Your task to perform on an android device: What's the weather going to be this weekend? Image 0: 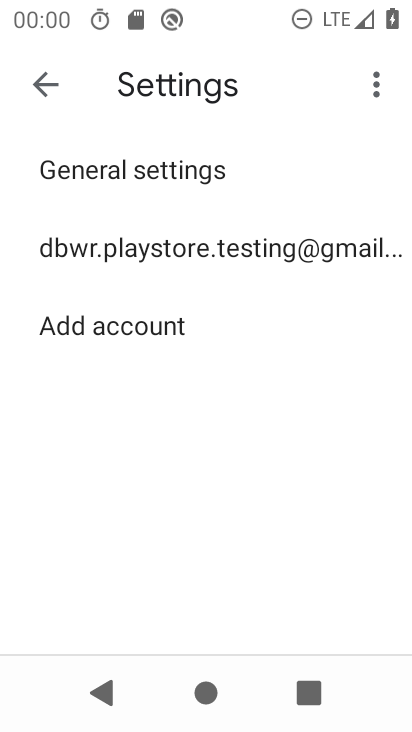
Step 0: press home button
Your task to perform on an android device: What's the weather going to be this weekend? Image 1: 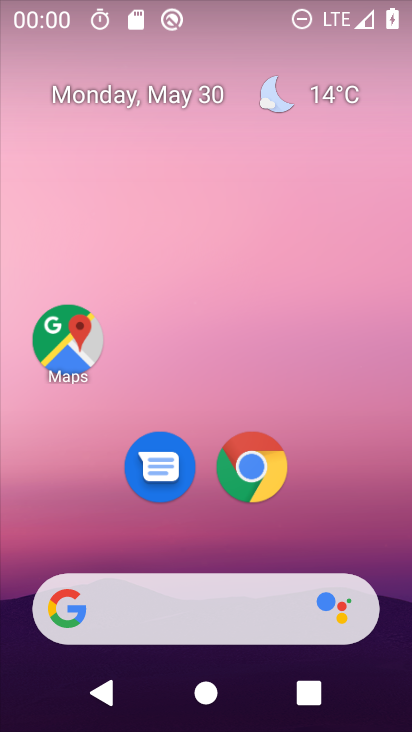
Step 1: drag from (207, 545) to (214, 222)
Your task to perform on an android device: What's the weather going to be this weekend? Image 2: 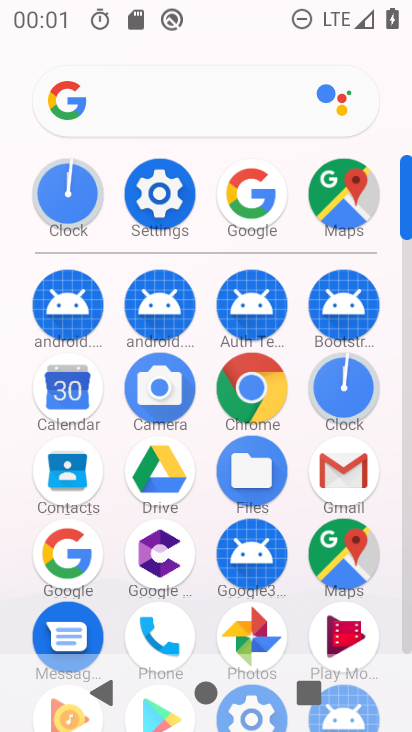
Step 2: click (252, 186)
Your task to perform on an android device: What's the weather going to be this weekend? Image 3: 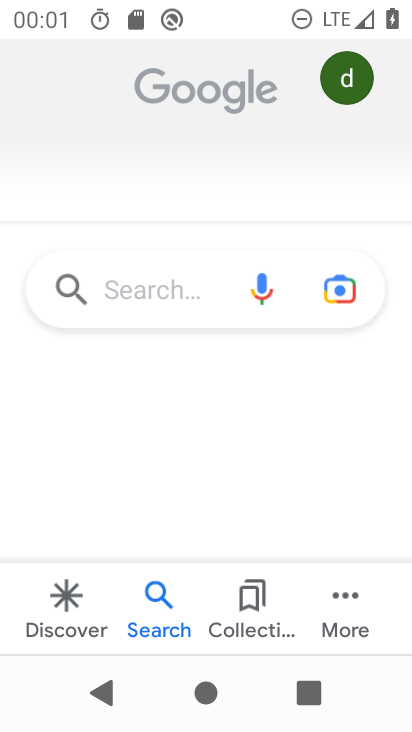
Step 3: click (155, 276)
Your task to perform on an android device: What's the weather going to be this weekend? Image 4: 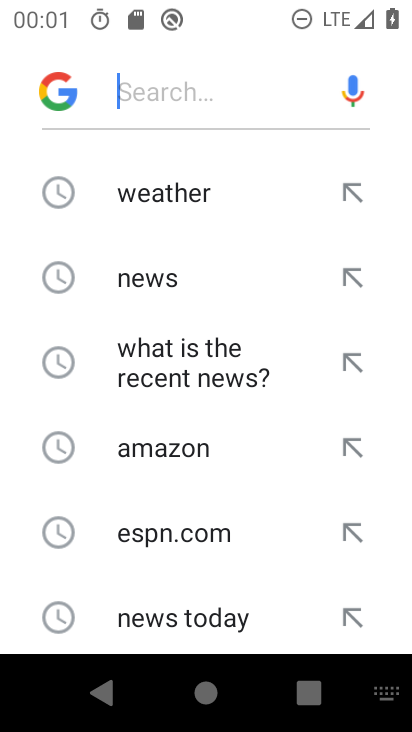
Step 4: click (173, 202)
Your task to perform on an android device: What's the weather going to be this weekend? Image 5: 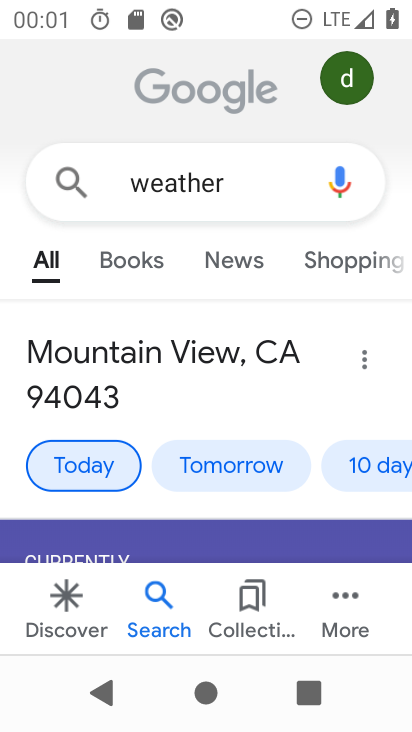
Step 5: click (372, 467)
Your task to perform on an android device: What's the weather going to be this weekend? Image 6: 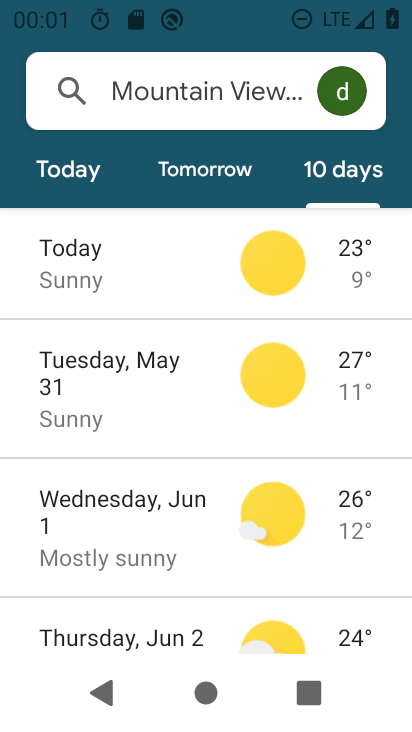
Step 6: task complete